Your task to perform on an android device: turn off notifications in google photos Image 0: 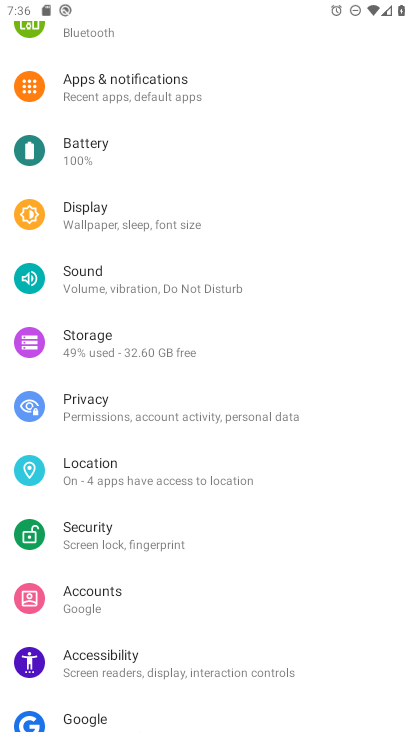
Step 0: click (150, 89)
Your task to perform on an android device: turn off notifications in google photos Image 1: 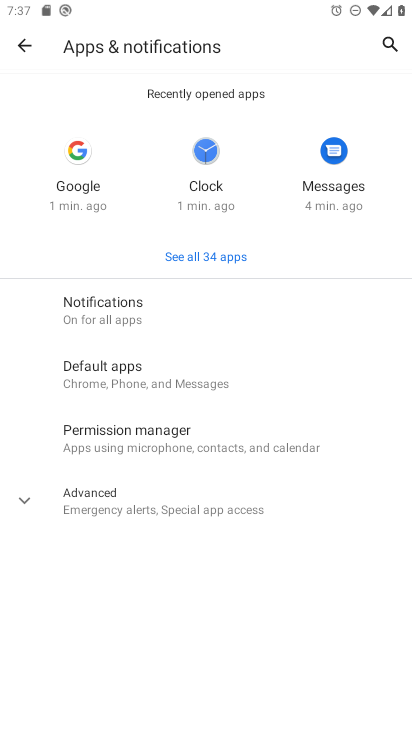
Step 1: click (176, 302)
Your task to perform on an android device: turn off notifications in google photos Image 2: 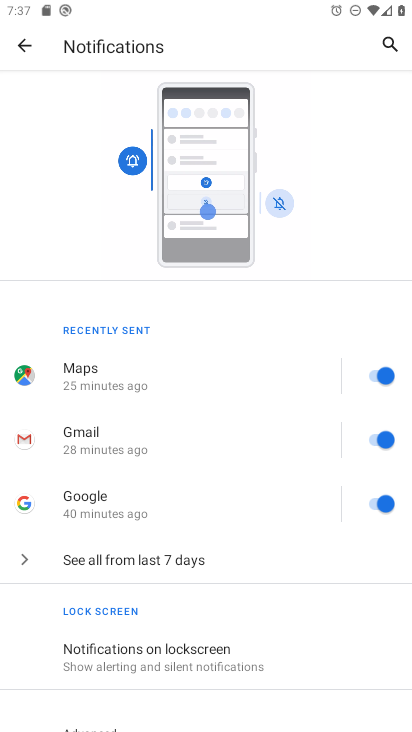
Step 2: click (224, 658)
Your task to perform on an android device: turn off notifications in google photos Image 3: 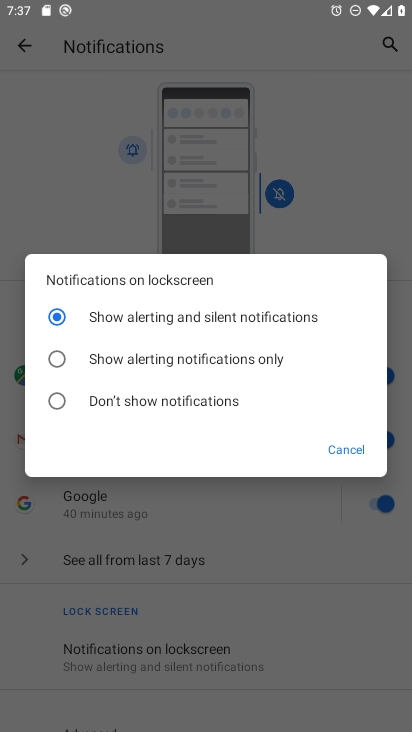
Step 3: click (190, 392)
Your task to perform on an android device: turn off notifications in google photos Image 4: 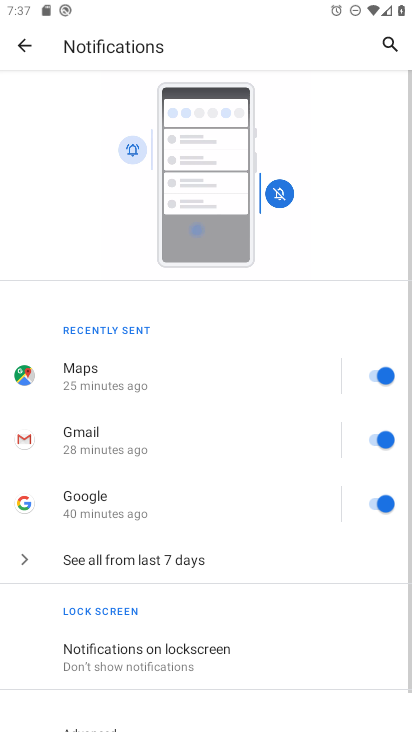
Step 4: task complete